Your task to perform on an android device: turn on improve location accuracy Image 0: 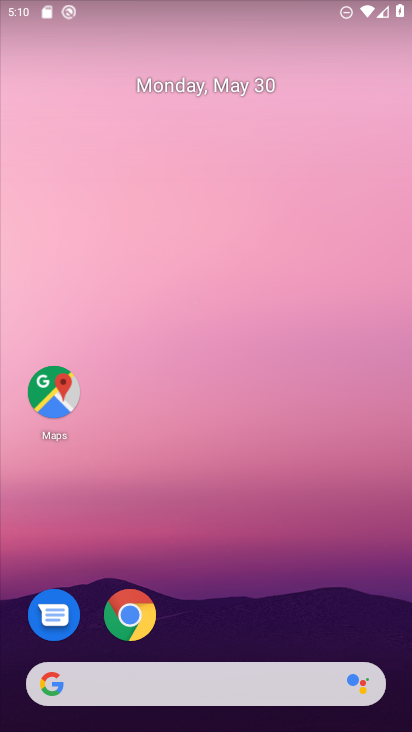
Step 0: drag from (210, 622) to (256, 58)
Your task to perform on an android device: turn on improve location accuracy Image 1: 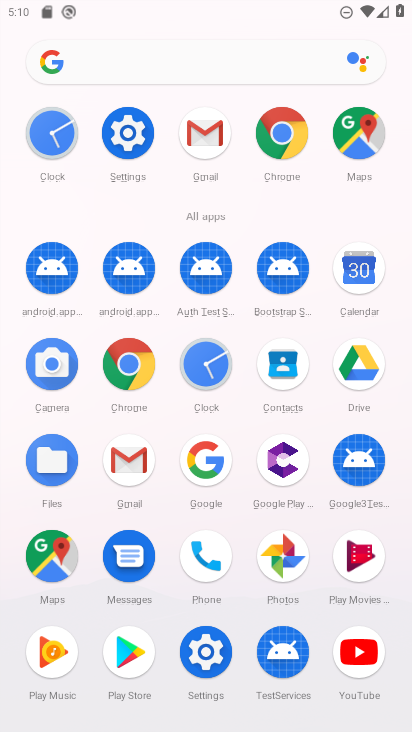
Step 1: click (122, 148)
Your task to perform on an android device: turn on improve location accuracy Image 2: 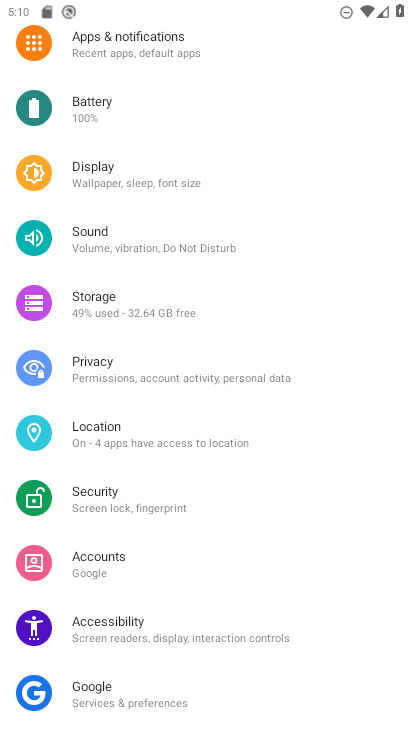
Step 2: click (192, 437)
Your task to perform on an android device: turn on improve location accuracy Image 3: 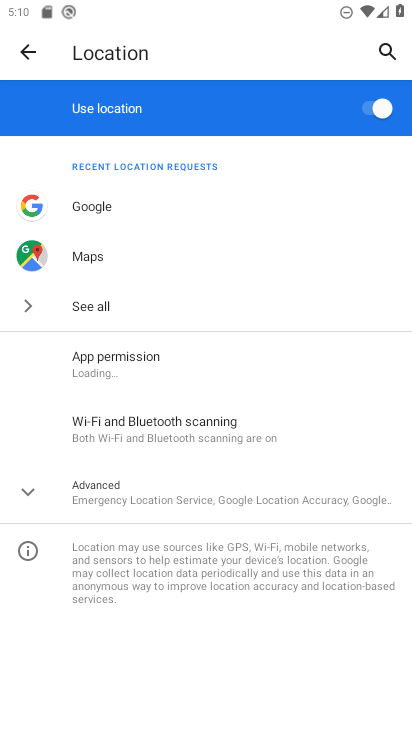
Step 3: click (185, 490)
Your task to perform on an android device: turn on improve location accuracy Image 4: 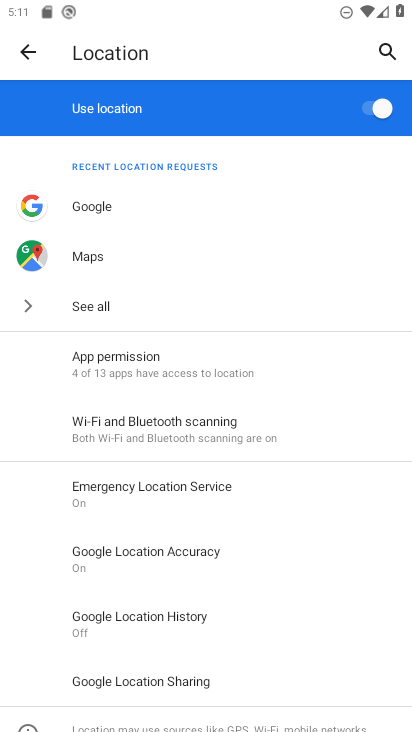
Step 4: click (209, 552)
Your task to perform on an android device: turn on improve location accuracy Image 5: 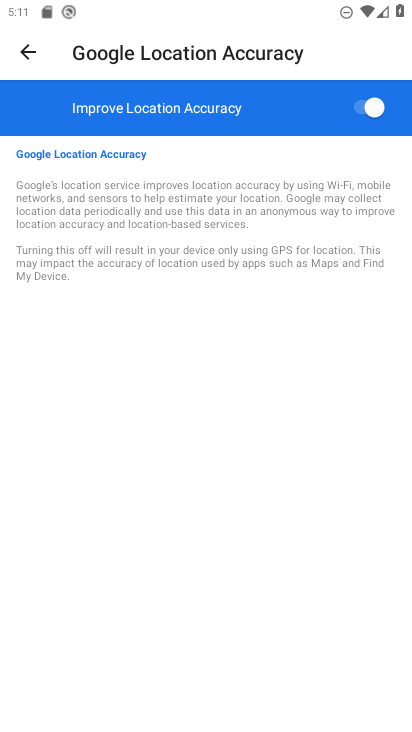
Step 5: task complete